Your task to perform on an android device: open wifi settings Image 0: 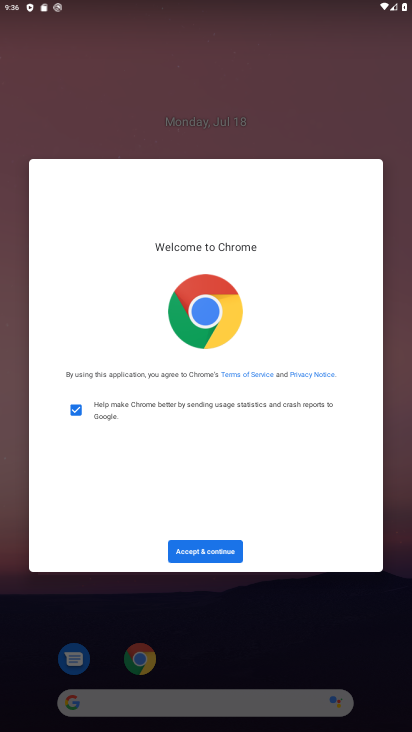
Step 0: press home button
Your task to perform on an android device: open wifi settings Image 1: 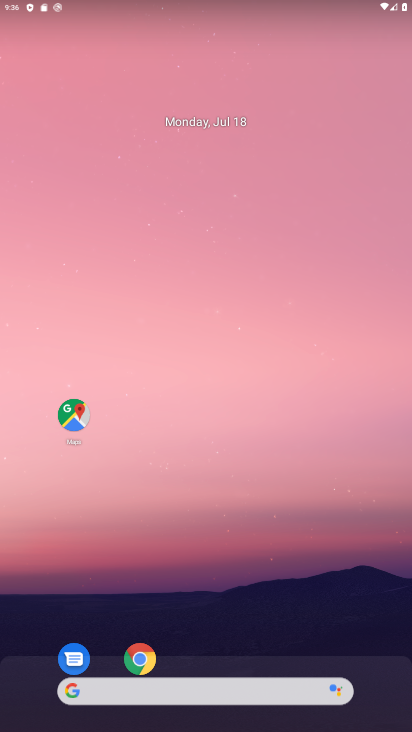
Step 1: drag from (216, 671) to (266, 75)
Your task to perform on an android device: open wifi settings Image 2: 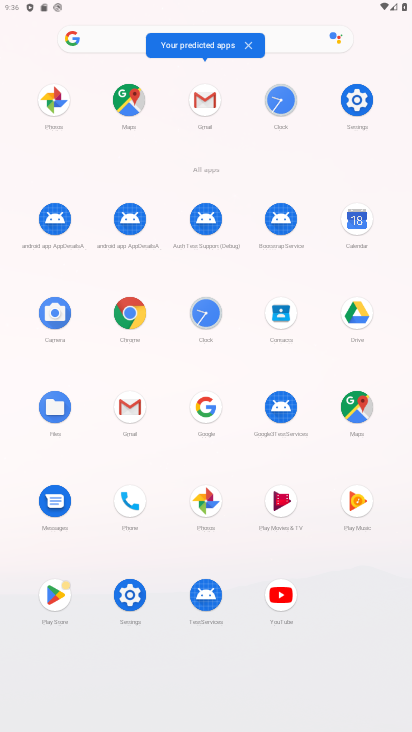
Step 2: click (129, 591)
Your task to perform on an android device: open wifi settings Image 3: 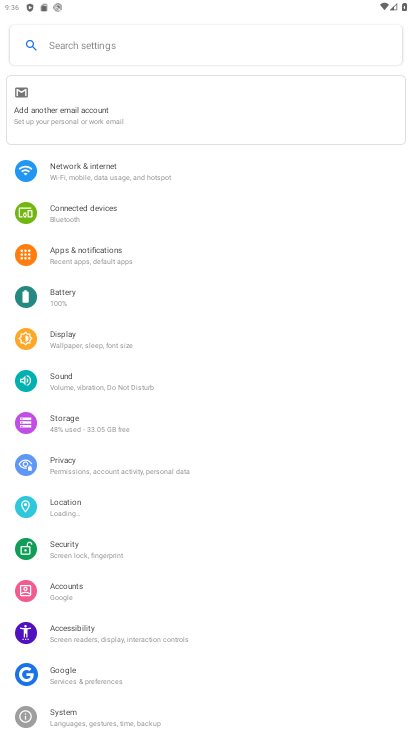
Step 3: click (154, 173)
Your task to perform on an android device: open wifi settings Image 4: 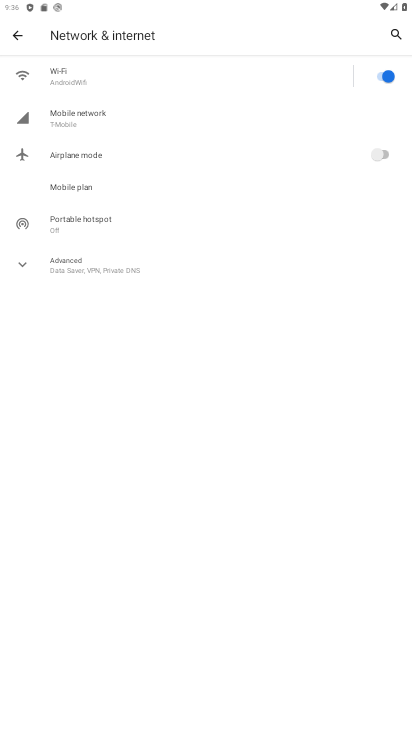
Step 4: click (150, 87)
Your task to perform on an android device: open wifi settings Image 5: 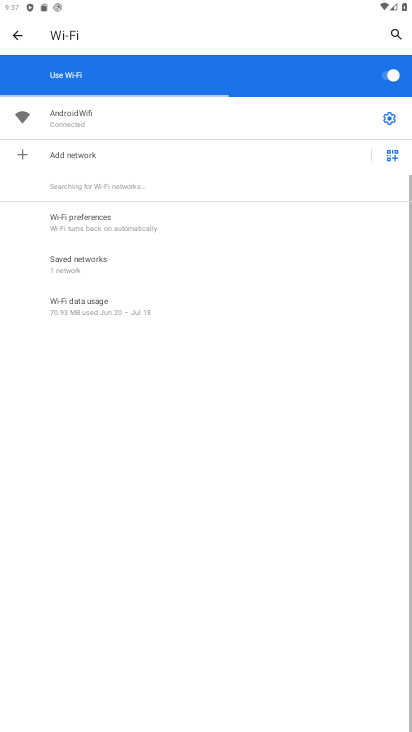
Step 5: task complete